Your task to perform on an android device: Go to privacy settings Image 0: 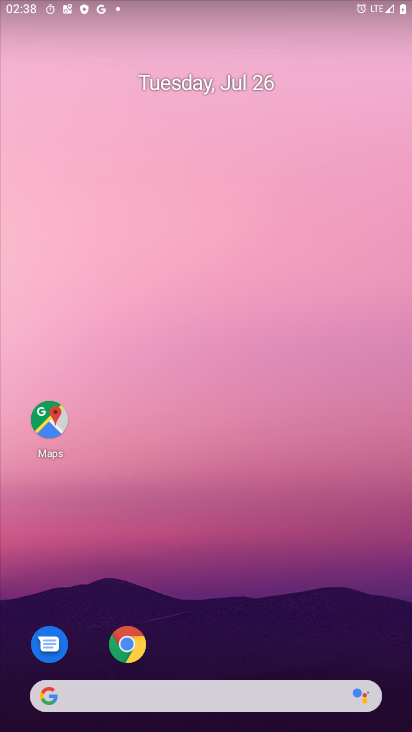
Step 0: drag from (234, 624) to (245, 72)
Your task to perform on an android device: Go to privacy settings Image 1: 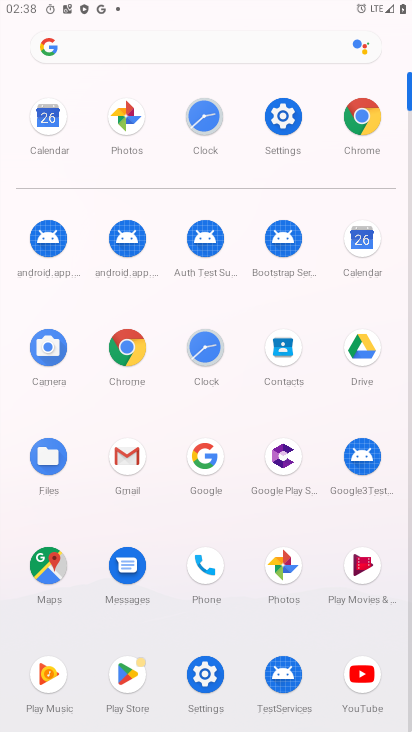
Step 1: click (286, 119)
Your task to perform on an android device: Go to privacy settings Image 2: 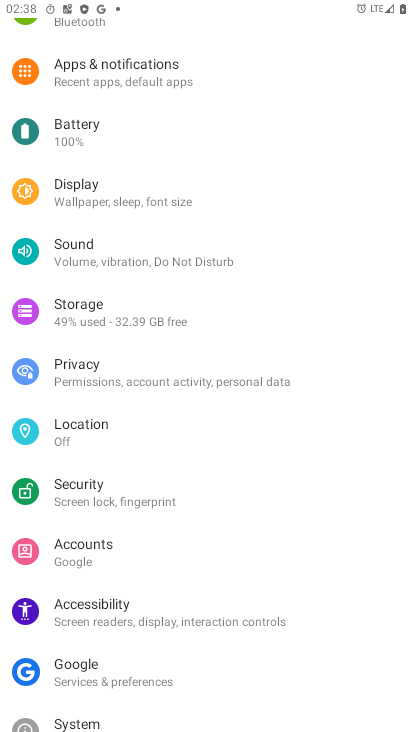
Step 2: click (74, 379)
Your task to perform on an android device: Go to privacy settings Image 3: 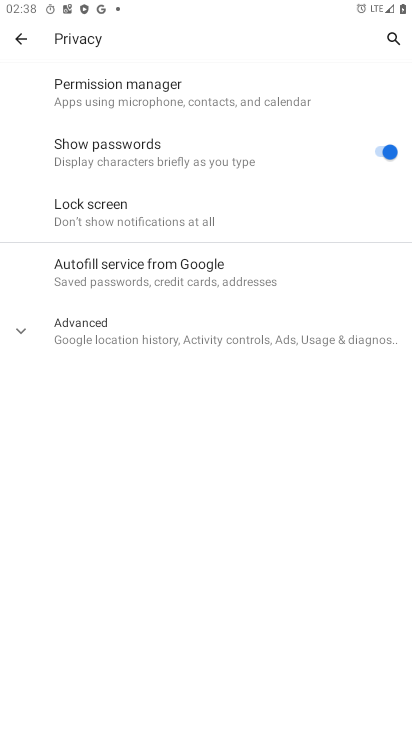
Step 3: task complete